Your task to perform on an android device: snooze an email in the gmail app Image 0: 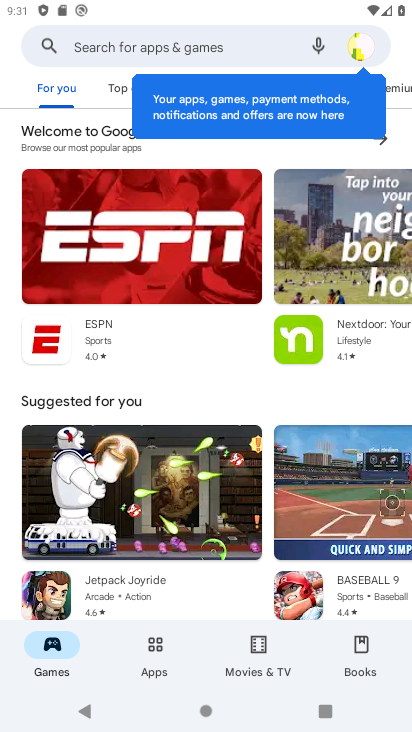
Step 0: press back button
Your task to perform on an android device: snooze an email in the gmail app Image 1: 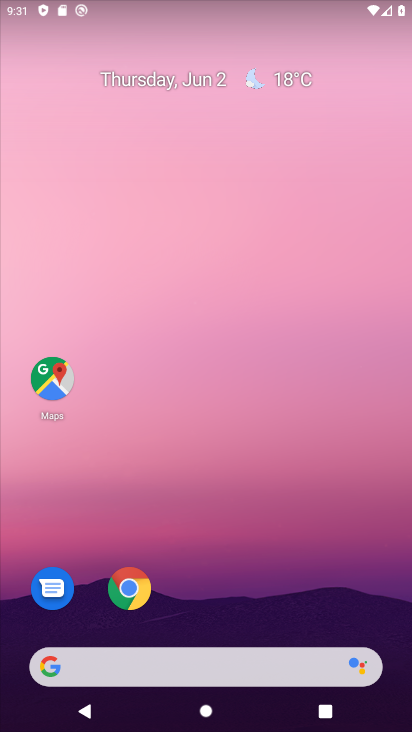
Step 1: drag from (263, 609) to (262, 132)
Your task to perform on an android device: snooze an email in the gmail app Image 2: 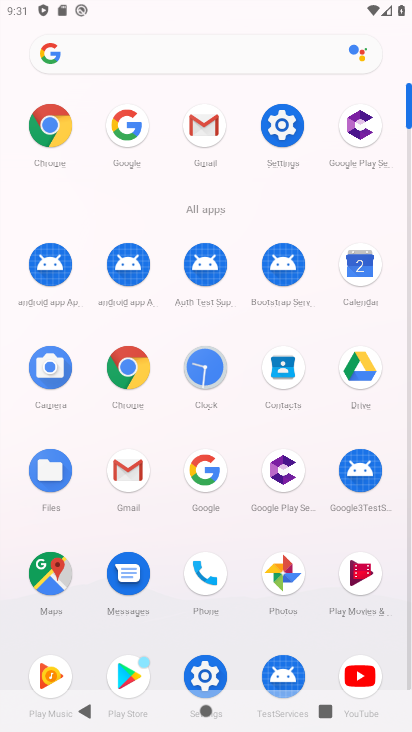
Step 2: click (139, 471)
Your task to perform on an android device: snooze an email in the gmail app Image 3: 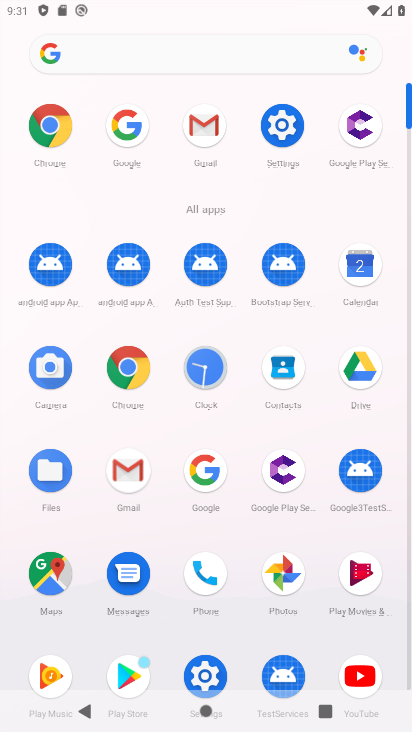
Step 3: click (136, 472)
Your task to perform on an android device: snooze an email in the gmail app Image 4: 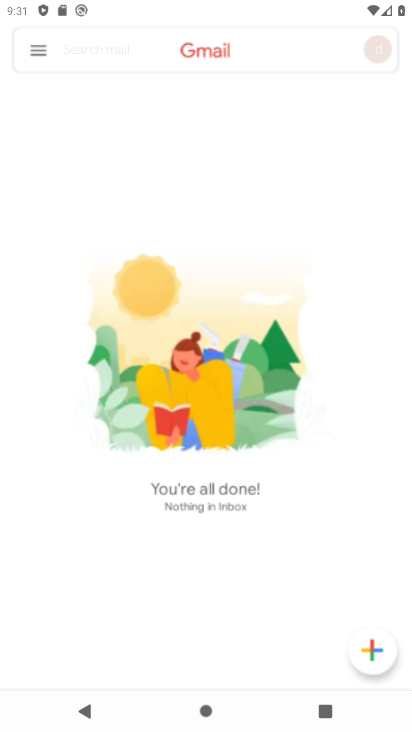
Step 4: click (137, 474)
Your task to perform on an android device: snooze an email in the gmail app Image 5: 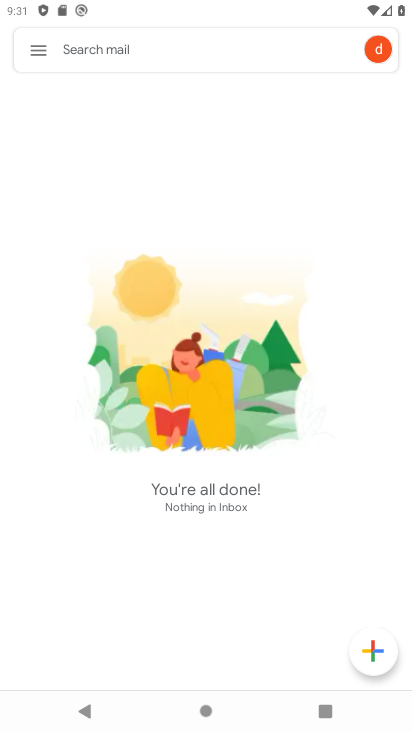
Step 5: click (37, 54)
Your task to perform on an android device: snooze an email in the gmail app Image 6: 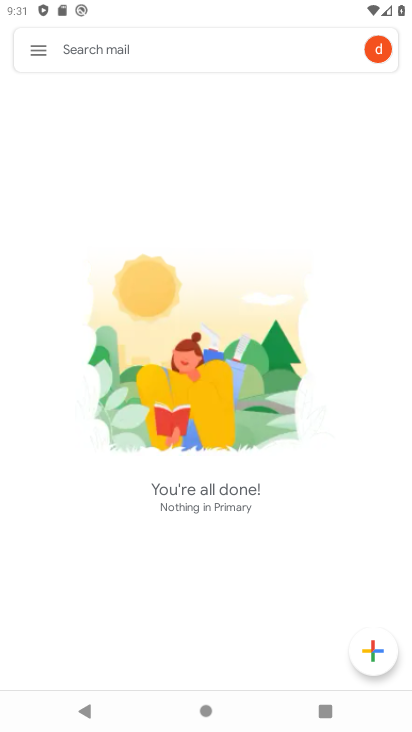
Step 6: click (37, 54)
Your task to perform on an android device: snooze an email in the gmail app Image 7: 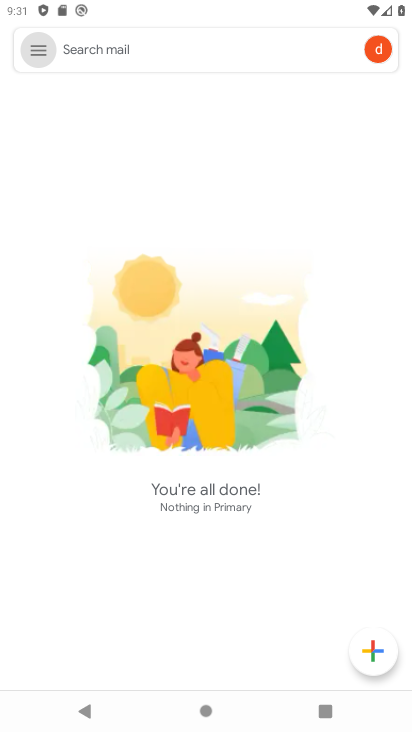
Step 7: drag from (37, 54) to (38, 224)
Your task to perform on an android device: snooze an email in the gmail app Image 8: 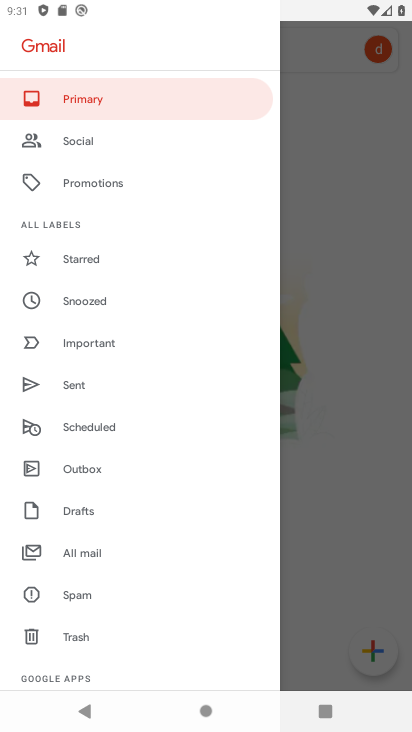
Step 8: click (81, 559)
Your task to perform on an android device: snooze an email in the gmail app Image 9: 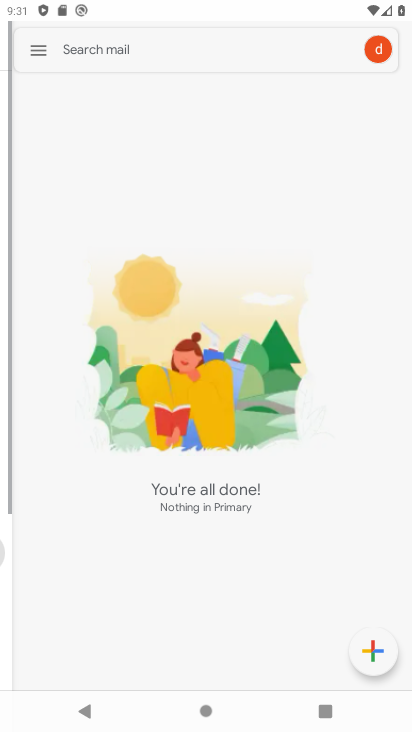
Step 9: click (81, 559)
Your task to perform on an android device: snooze an email in the gmail app Image 10: 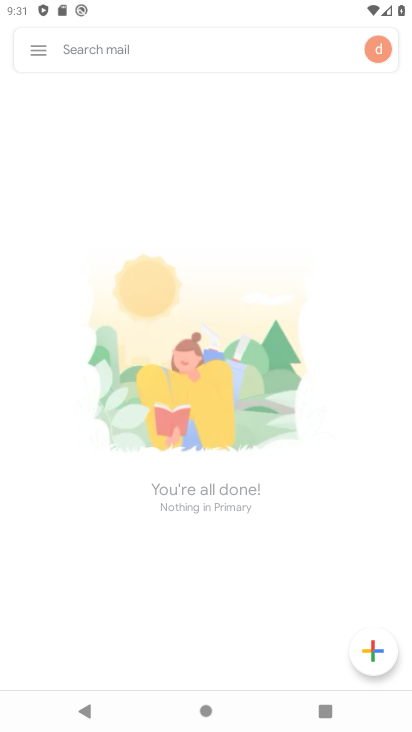
Step 10: click (80, 559)
Your task to perform on an android device: snooze an email in the gmail app Image 11: 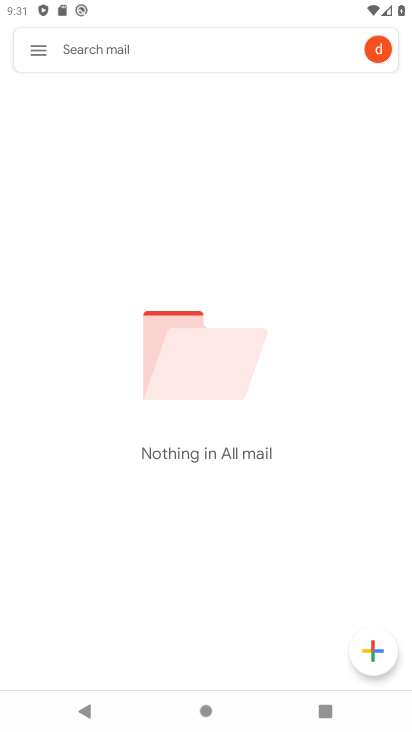
Step 11: task complete